Your task to perform on an android device: Go to display settings Image 0: 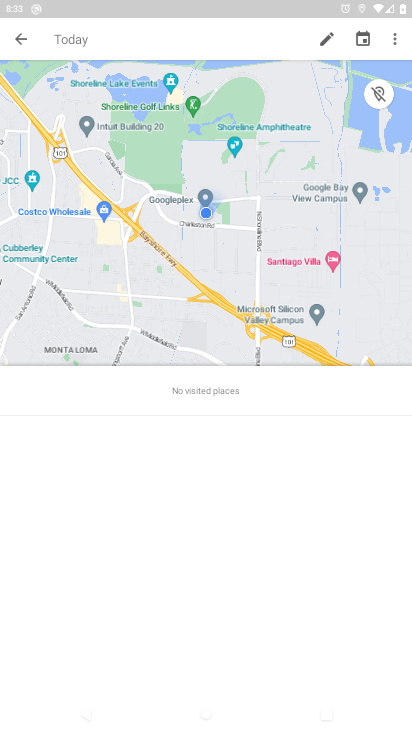
Step 0: press home button
Your task to perform on an android device: Go to display settings Image 1: 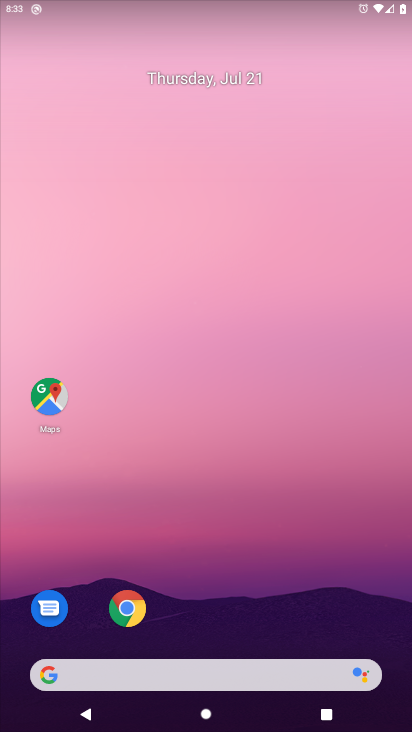
Step 1: drag from (34, 694) to (307, 29)
Your task to perform on an android device: Go to display settings Image 2: 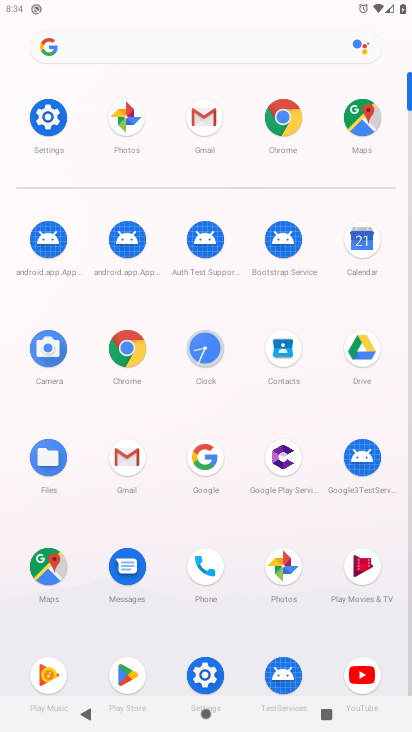
Step 2: click (198, 677)
Your task to perform on an android device: Go to display settings Image 3: 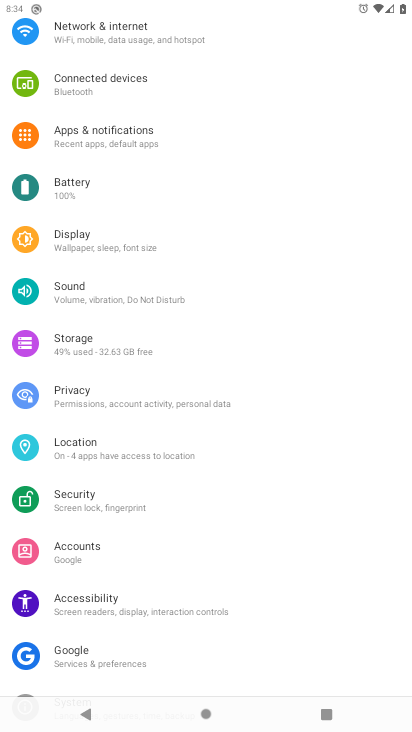
Step 3: click (92, 256)
Your task to perform on an android device: Go to display settings Image 4: 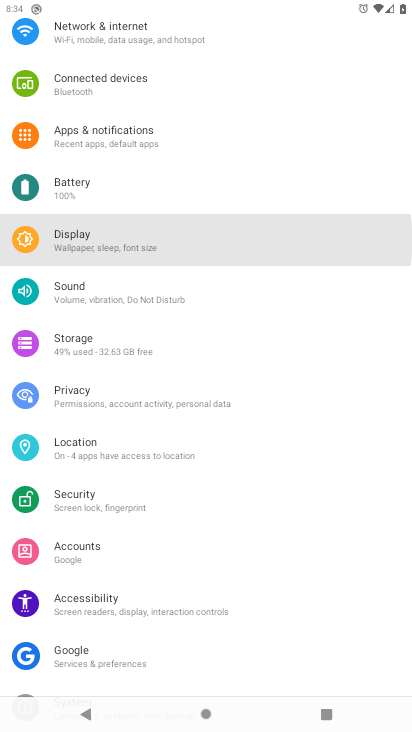
Step 4: click (92, 244)
Your task to perform on an android device: Go to display settings Image 5: 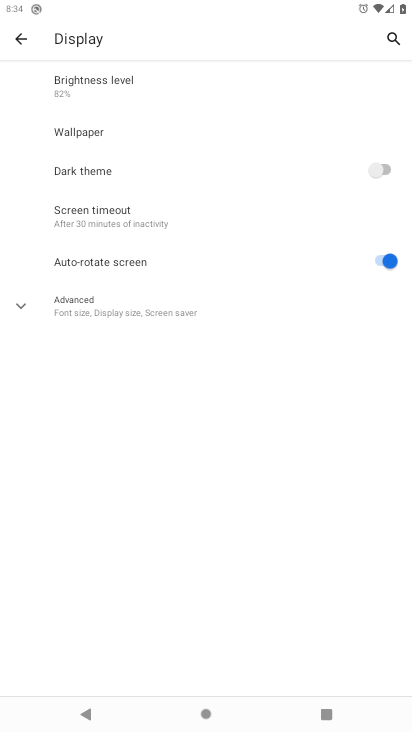
Step 5: task complete